Your task to perform on an android device: Turn off the flashlight Image 0: 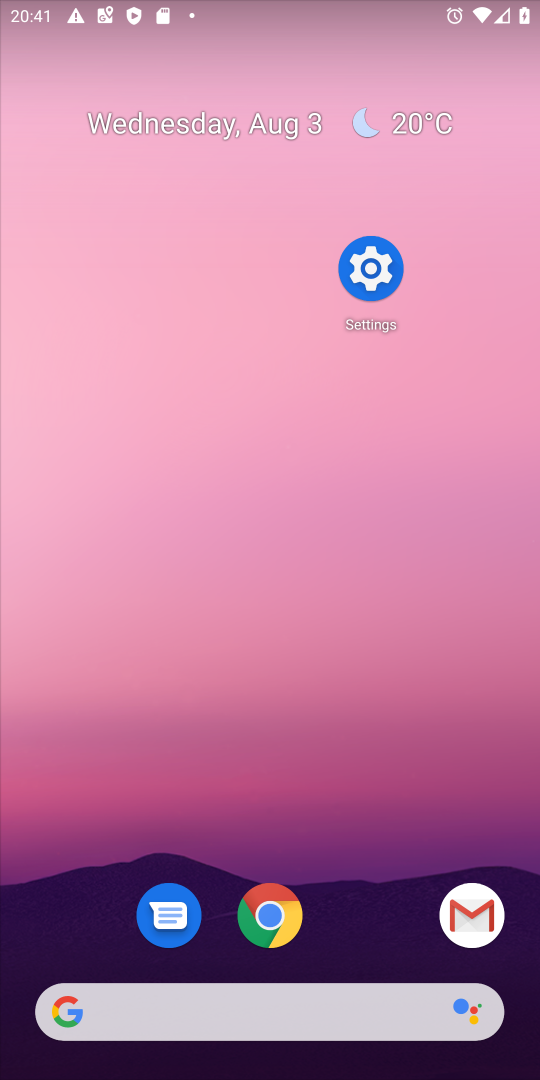
Step 0: drag from (361, 1044) to (310, 189)
Your task to perform on an android device: Turn off the flashlight Image 1: 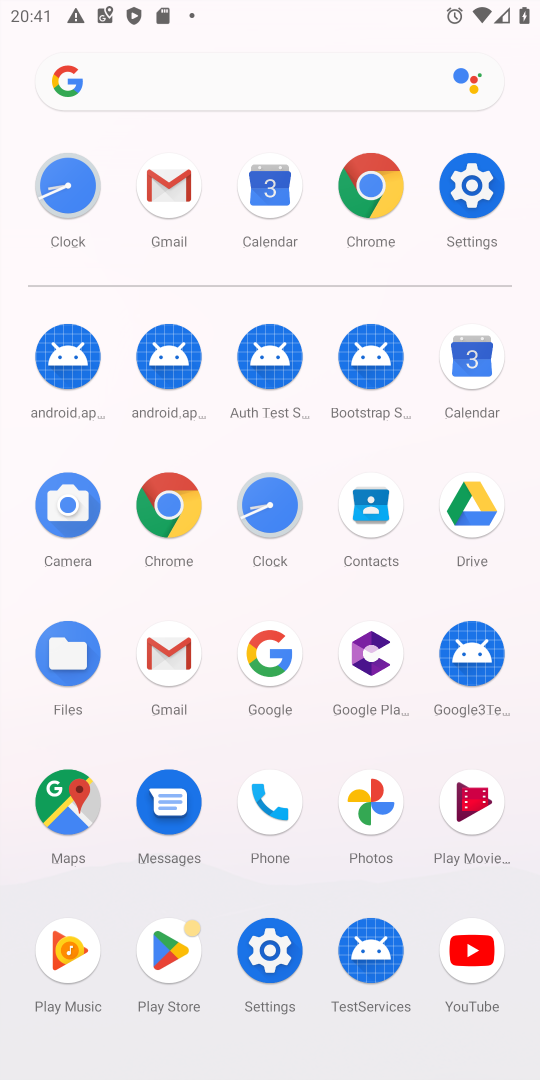
Step 1: click (472, 217)
Your task to perform on an android device: Turn off the flashlight Image 2: 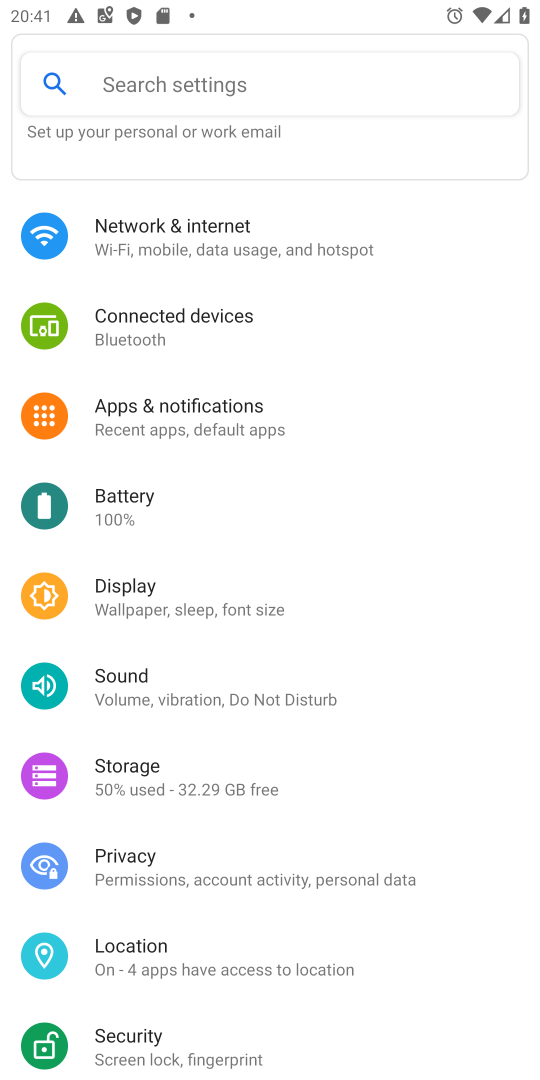
Step 2: click (181, 83)
Your task to perform on an android device: Turn off the flashlight Image 3: 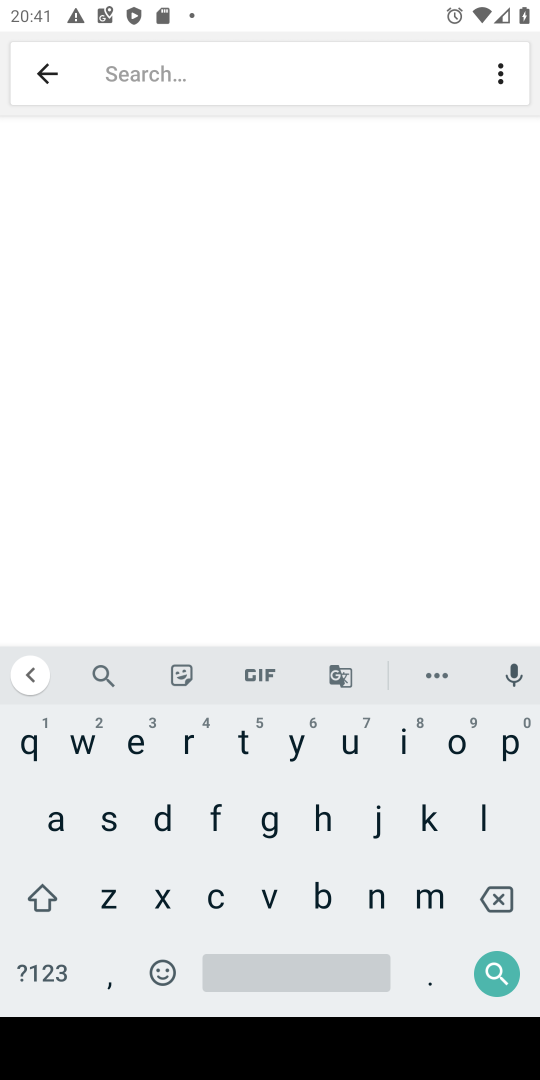
Step 3: click (207, 819)
Your task to perform on an android device: Turn off the flashlight Image 4: 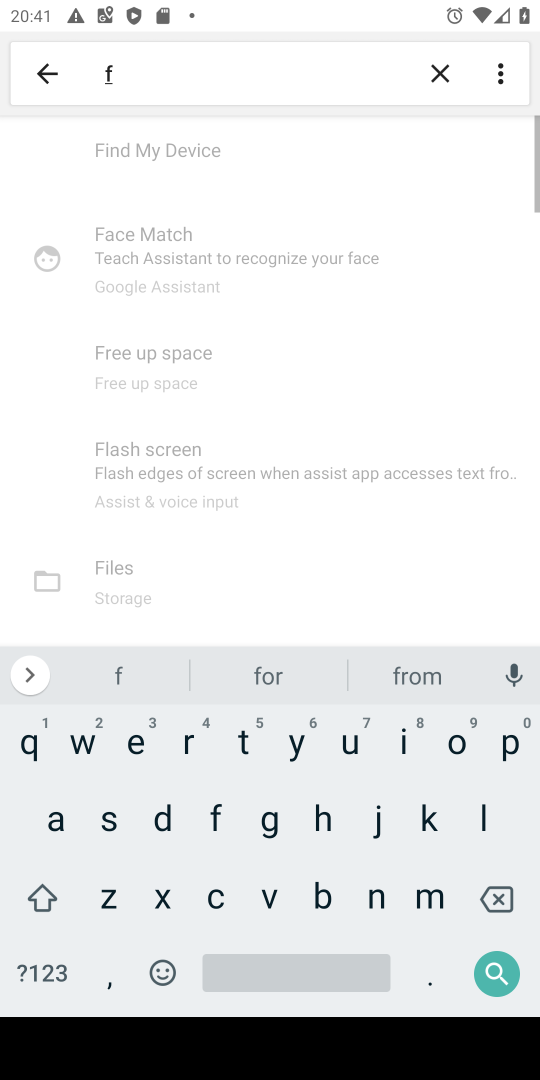
Step 4: click (484, 823)
Your task to perform on an android device: Turn off the flashlight Image 5: 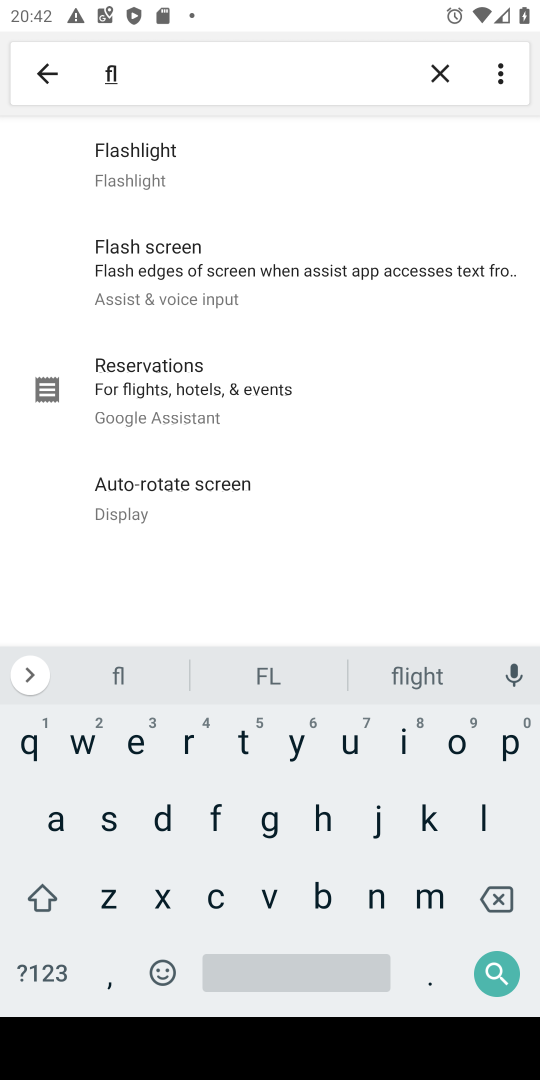
Step 5: click (191, 162)
Your task to perform on an android device: Turn off the flashlight Image 6: 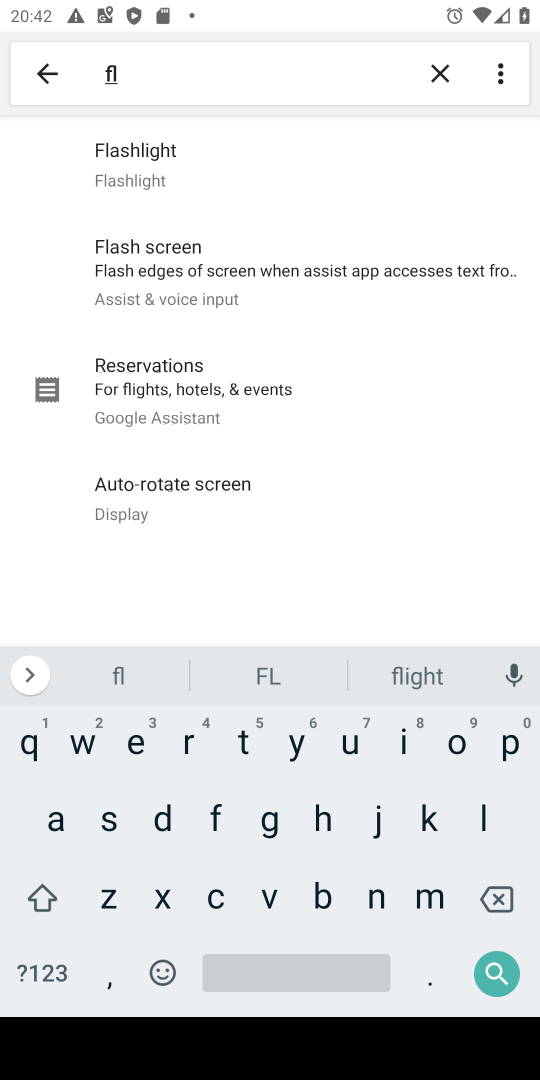
Step 6: task complete